Your task to perform on an android device: Empty the shopping cart on newegg. Search for razer kraken on newegg, select the first entry, add it to the cart, then select checkout. Image 0: 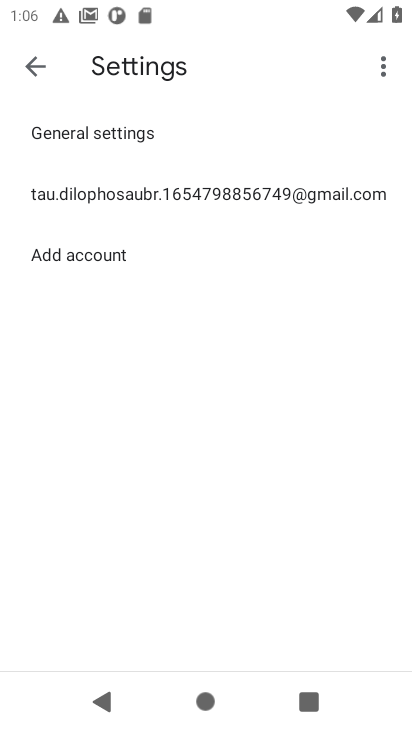
Step 0: press home button
Your task to perform on an android device: Empty the shopping cart on newegg. Search for razer kraken on newegg, select the first entry, add it to the cart, then select checkout. Image 1: 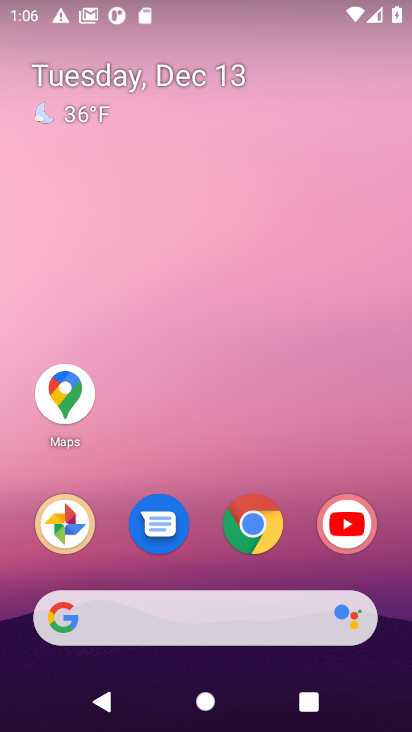
Step 1: click (255, 522)
Your task to perform on an android device: Empty the shopping cart on newegg. Search for razer kraken on newegg, select the first entry, add it to the cart, then select checkout. Image 2: 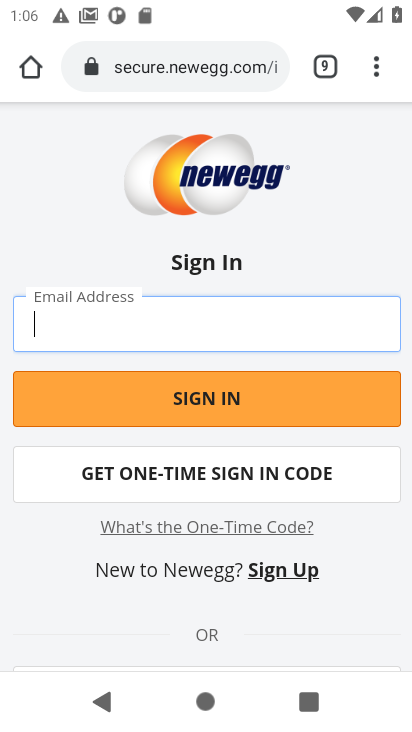
Step 2: press back button
Your task to perform on an android device: Empty the shopping cart on newegg. Search for razer kraken on newegg, select the first entry, add it to the cart, then select checkout. Image 3: 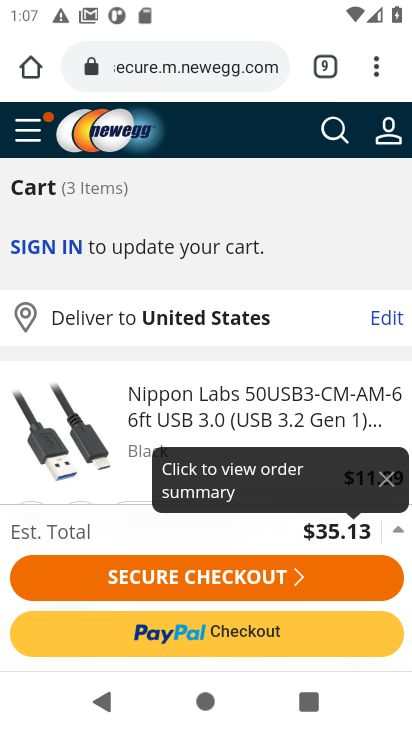
Step 3: drag from (118, 403) to (127, 244)
Your task to perform on an android device: Empty the shopping cart on newegg. Search for razer kraken on newegg, select the first entry, add it to the cart, then select checkout. Image 4: 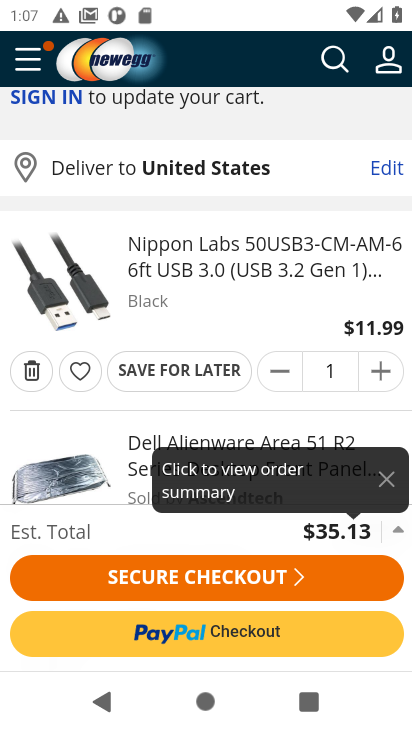
Step 4: click (30, 366)
Your task to perform on an android device: Empty the shopping cart on newegg. Search for razer kraken on newegg, select the first entry, add it to the cart, then select checkout. Image 5: 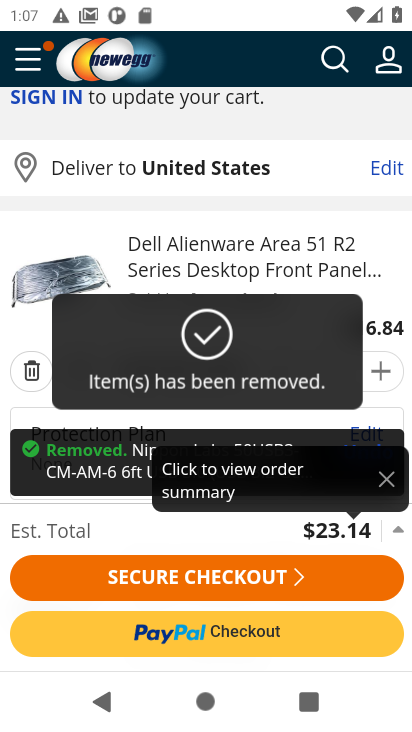
Step 5: click (30, 366)
Your task to perform on an android device: Empty the shopping cart on newegg. Search for razer kraken on newegg, select the first entry, add it to the cart, then select checkout. Image 6: 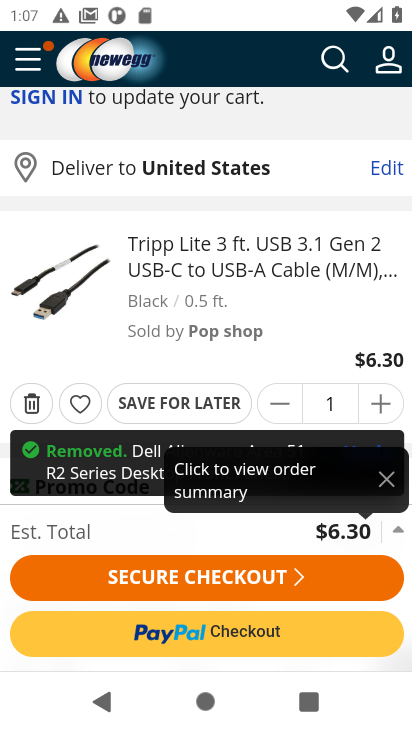
Step 6: click (27, 400)
Your task to perform on an android device: Empty the shopping cart on newegg. Search for razer kraken on newegg, select the first entry, add it to the cart, then select checkout. Image 7: 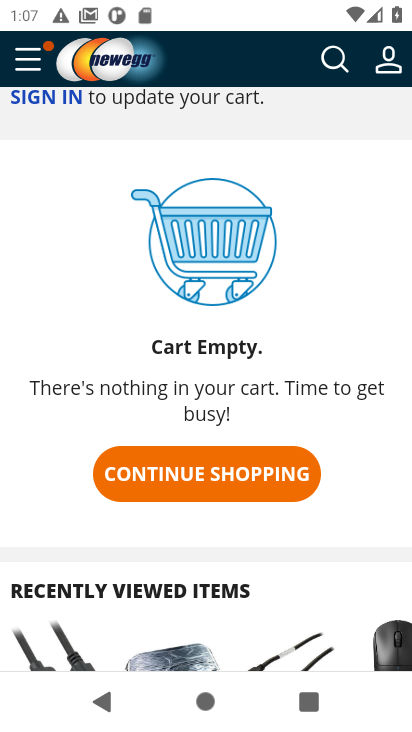
Step 7: click (327, 61)
Your task to perform on an android device: Empty the shopping cart on newegg. Search for razer kraken on newegg, select the first entry, add it to the cart, then select checkout. Image 8: 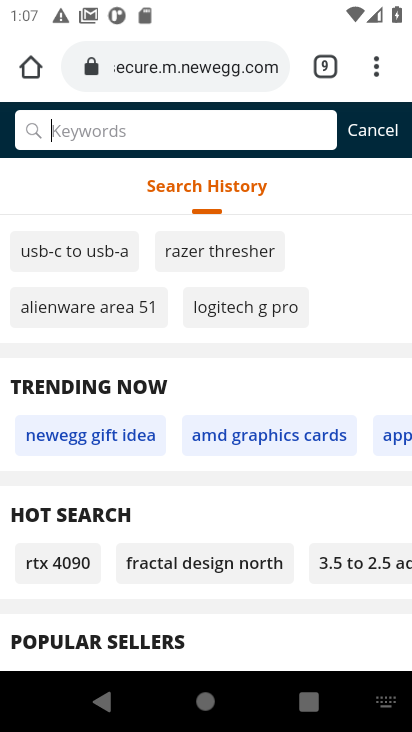
Step 8: type " razer kraken"
Your task to perform on an android device: Empty the shopping cart on newegg. Search for razer kraken on newegg, select the first entry, add it to the cart, then select checkout. Image 9: 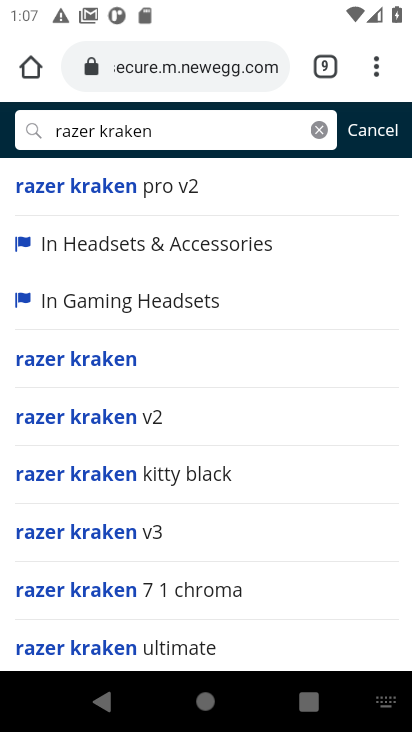
Step 9: click (114, 356)
Your task to perform on an android device: Empty the shopping cart on newegg. Search for razer kraken on newegg, select the first entry, add it to the cart, then select checkout. Image 10: 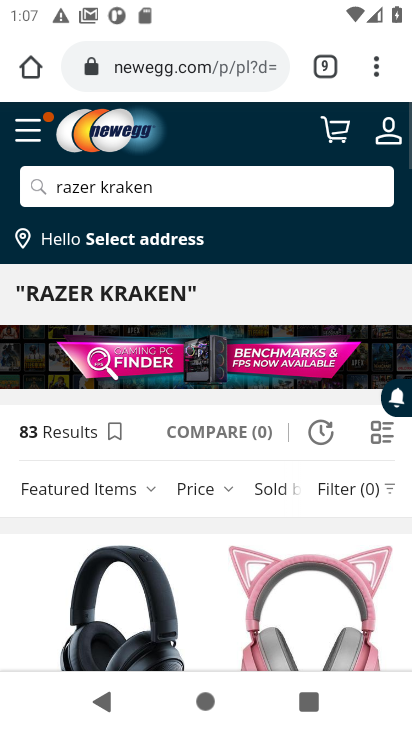
Step 10: drag from (164, 547) to (166, 265)
Your task to perform on an android device: Empty the shopping cart on newegg. Search for razer kraken on newegg, select the first entry, add it to the cart, then select checkout. Image 11: 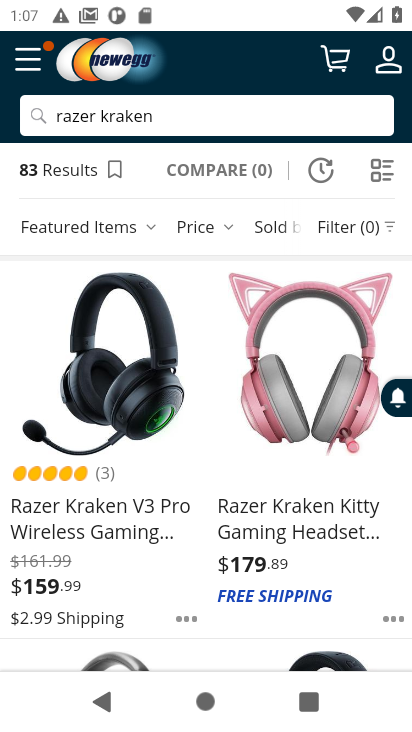
Step 11: click (83, 512)
Your task to perform on an android device: Empty the shopping cart on newegg. Search for razer kraken on newegg, select the first entry, add it to the cart, then select checkout. Image 12: 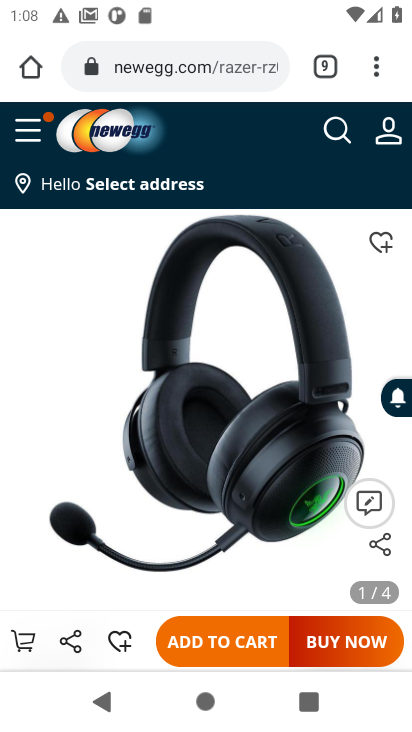
Step 12: click (245, 641)
Your task to perform on an android device: Empty the shopping cart on newegg. Search for razer kraken on newegg, select the first entry, add it to the cart, then select checkout. Image 13: 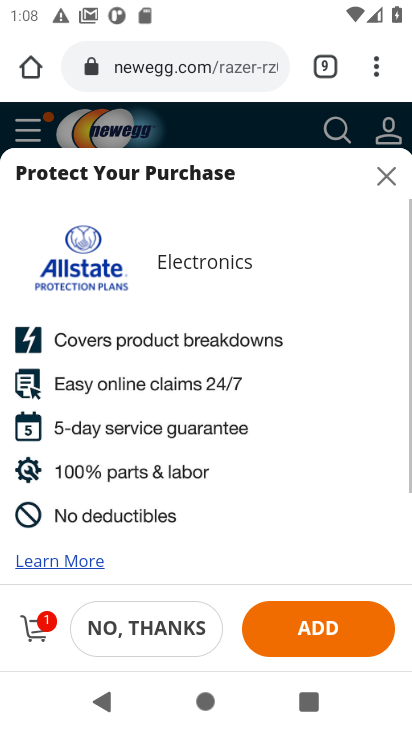
Step 13: click (39, 629)
Your task to perform on an android device: Empty the shopping cart on newegg. Search for razer kraken on newegg, select the first entry, add it to the cart, then select checkout. Image 14: 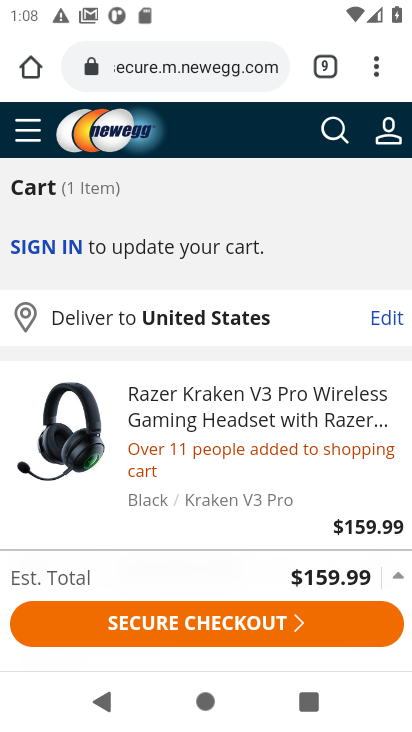
Step 14: click (148, 639)
Your task to perform on an android device: Empty the shopping cart on newegg. Search for razer kraken on newegg, select the first entry, add it to the cart, then select checkout. Image 15: 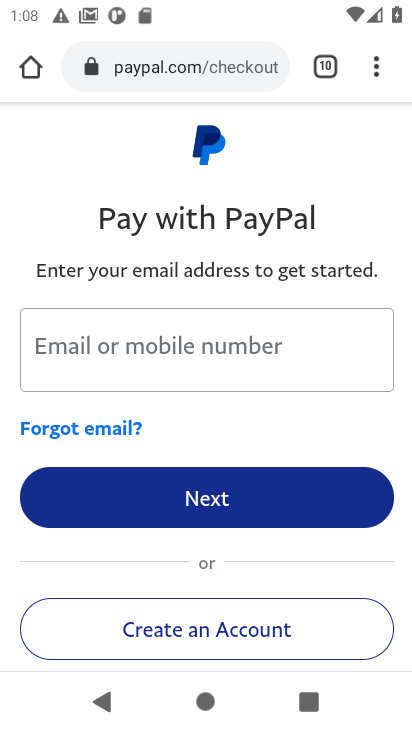
Step 15: task complete